Your task to perform on an android device: Open calendar and show me the second week of next month Image 0: 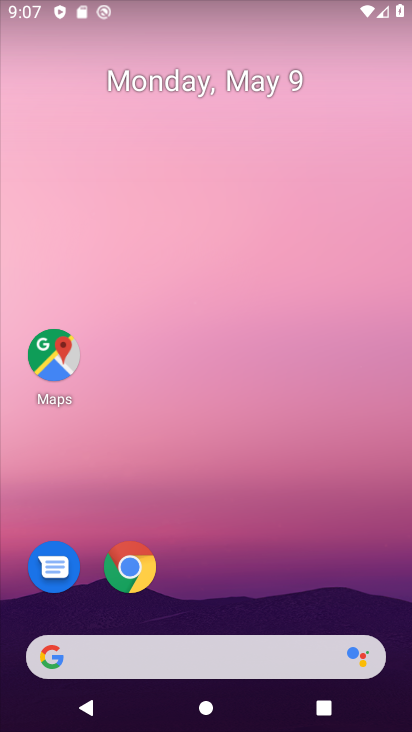
Step 0: drag from (205, 508) to (209, 9)
Your task to perform on an android device: Open calendar and show me the second week of next month Image 1: 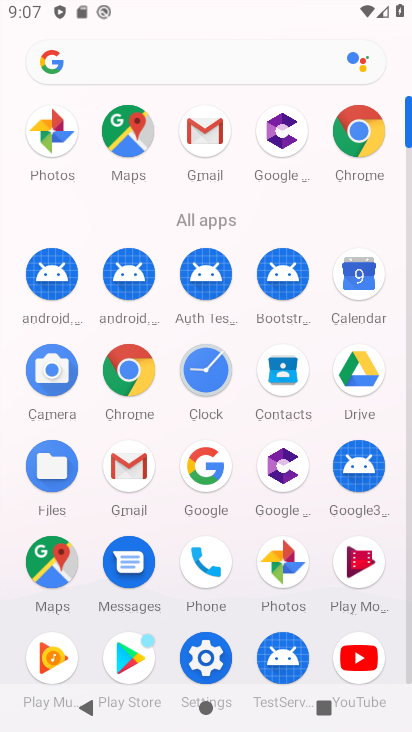
Step 1: click (356, 289)
Your task to perform on an android device: Open calendar and show me the second week of next month Image 2: 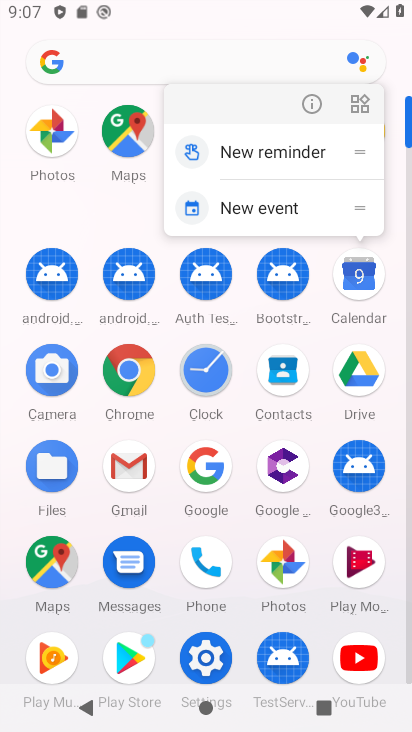
Step 2: click (306, 97)
Your task to perform on an android device: Open calendar and show me the second week of next month Image 3: 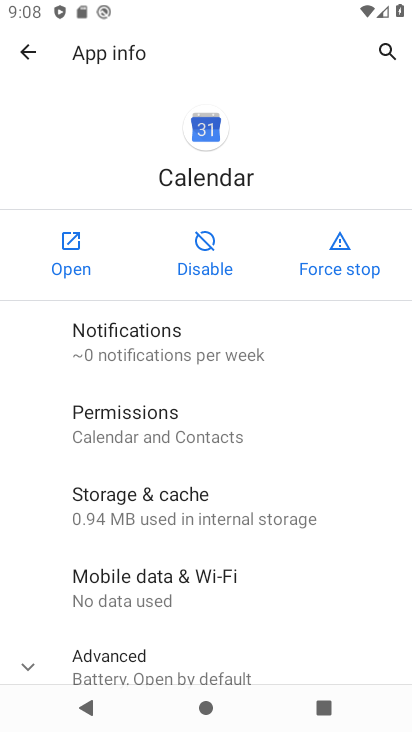
Step 3: click (63, 244)
Your task to perform on an android device: Open calendar and show me the second week of next month Image 4: 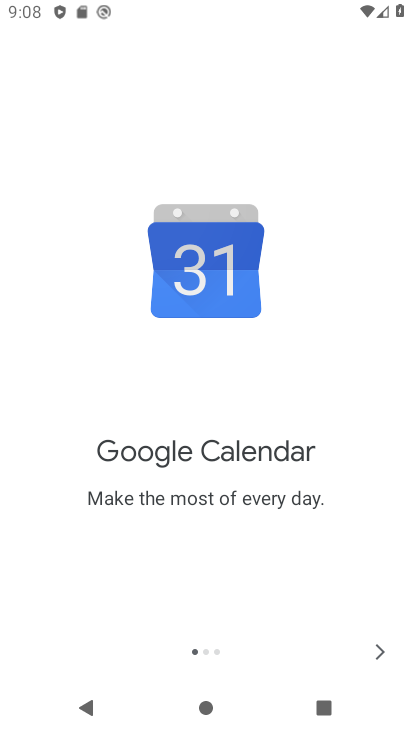
Step 4: click (369, 645)
Your task to perform on an android device: Open calendar and show me the second week of next month Image 5: 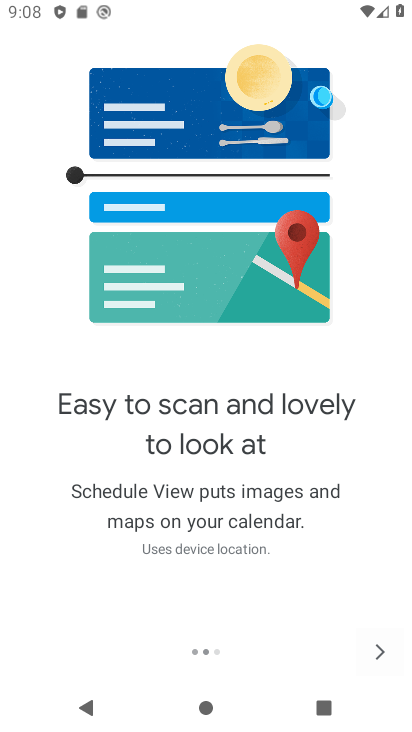
Step 5: click (374, 647)
Your task to perform on an android device: Open calendar and show me the second week of next month Image 6: 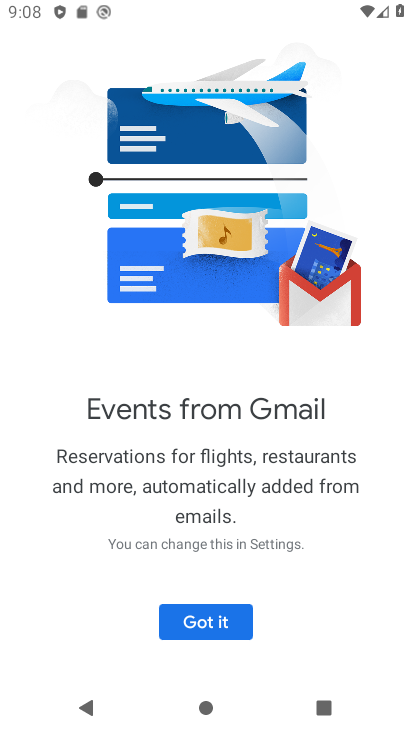
Step 6: click (374, 647)
Your task to perform on an android device: Open calendar and show me the second week of next month Image 7: 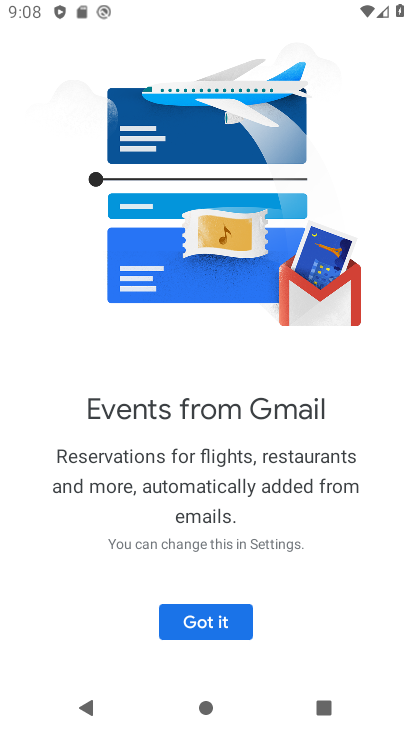
Step 7: click (158, 628)
Your task to perform on an android device: Open calendar and show me the second week of next month Image 8: 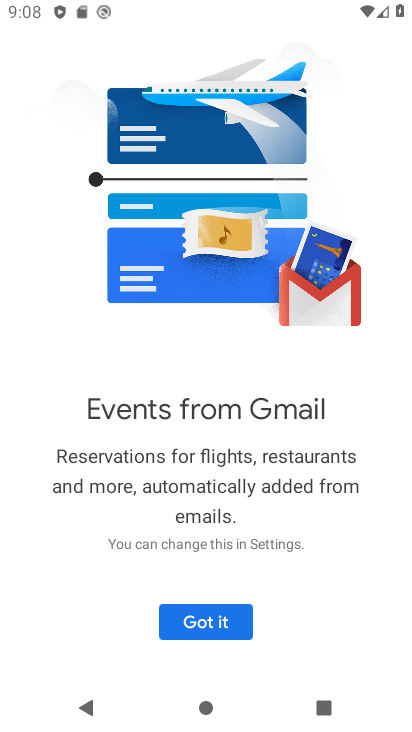
Step 8: click (237, 617)
Your task to perform on an android device: Open calendar and show me the second week of next month Image 9: 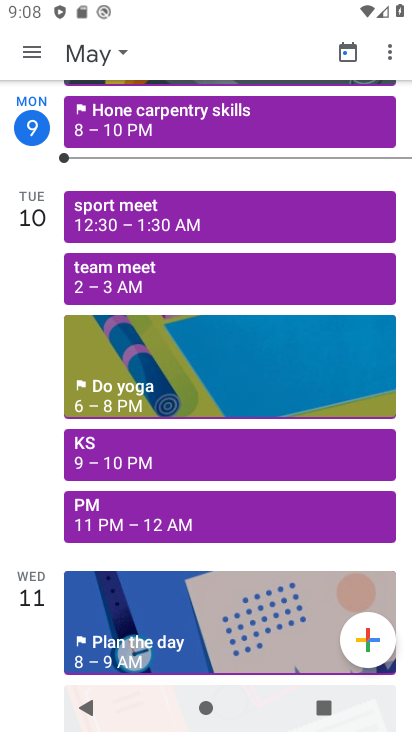
Step 9: drag from (244, 293) to (299, 504)
Your task to perform on an android device: Open calendar and show me the second week of next month Image 10: 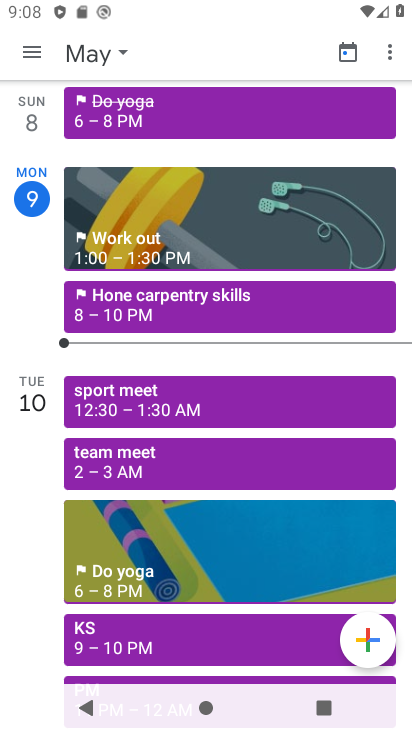
Step 10: click (103, 56)
Your task to perform on an android device: Open calendar and show me the second week of next month Image 11: 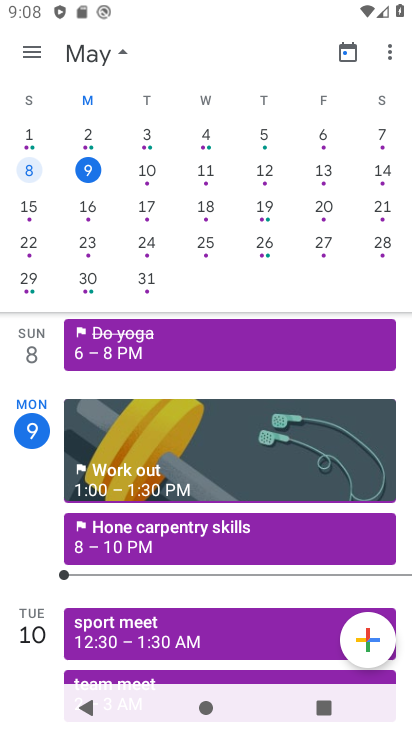
Step 11: drag from (371, 174) to (51, 158)
Your task to perform on an android device: Open calendar and show me the second week of next month Image 12: 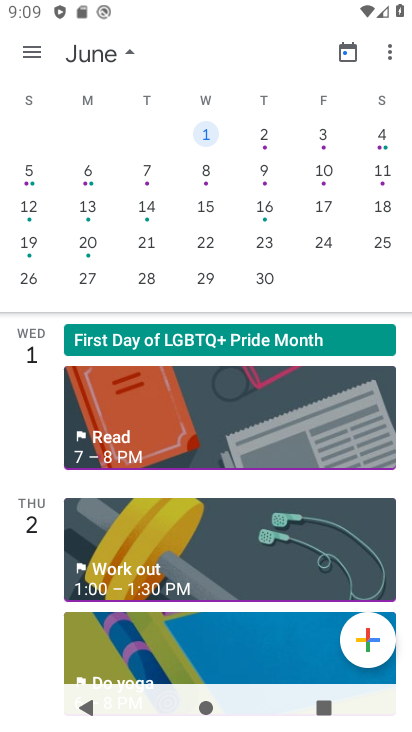
Step 12: click (273, 159)
Your task to perform on an android device: Open calendar and show me the second week of next month Image 13: 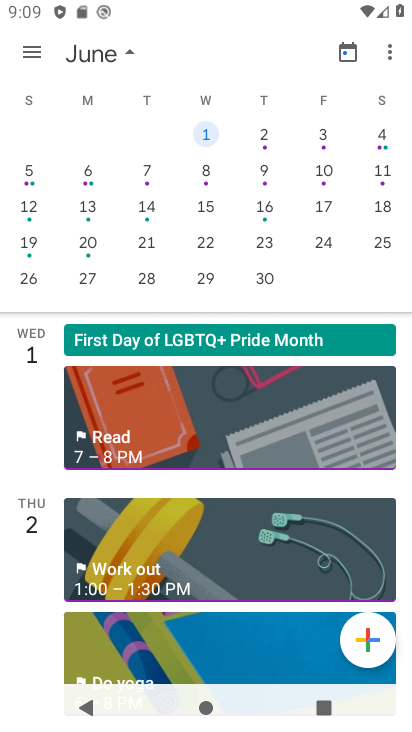
Step 13: click (257, 169)
Your task to perform on an android device: Open calendar and show me the second week of next month Image 14: 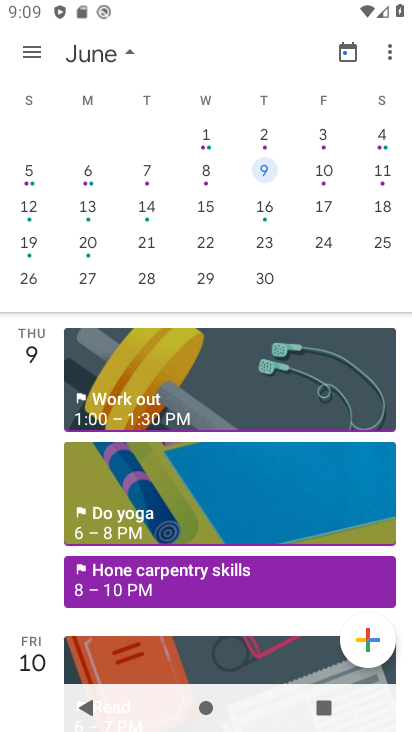
Step 14: task complete